Your task to perform on an android device: clear all cookies in the chrome app Image 0: 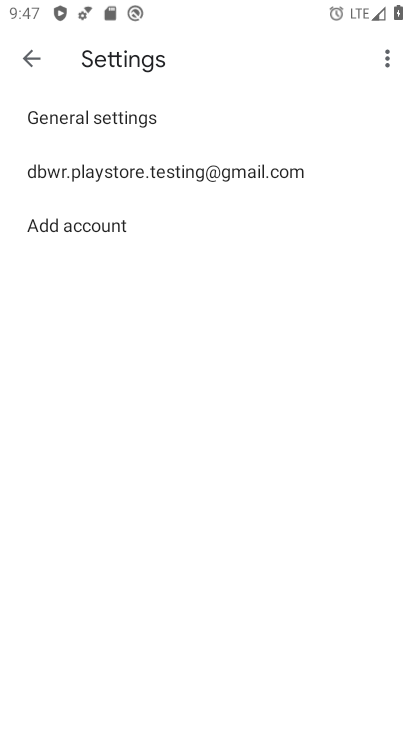
Step 0: press home button
Your task to perform on an android device: clear all cookies in the chrome app Image 1: 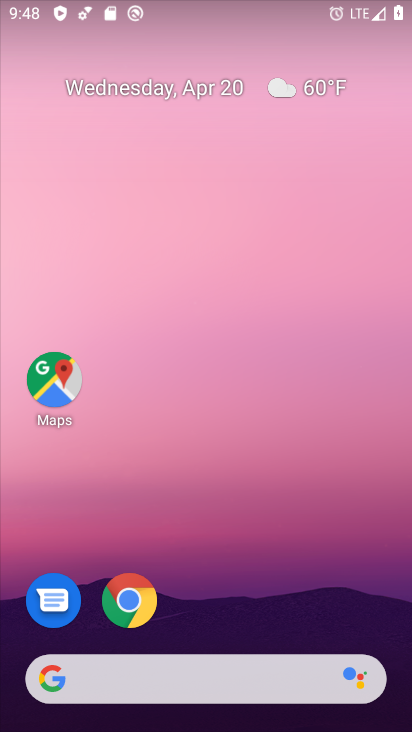
Step 1: click (125, 593)
Your task to perform on an android device: clear all cookies in the chrome app Image 2: 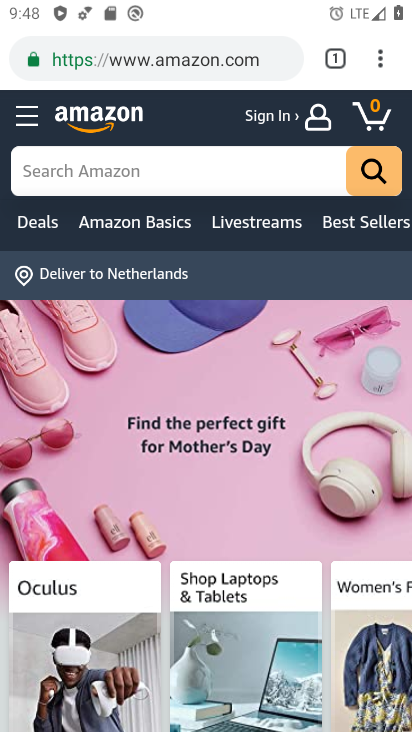
Step 2: drag from (377, 58) to (197, 406)
Your task to perform on an android device: clear all cookies in the chrome app Image 3: 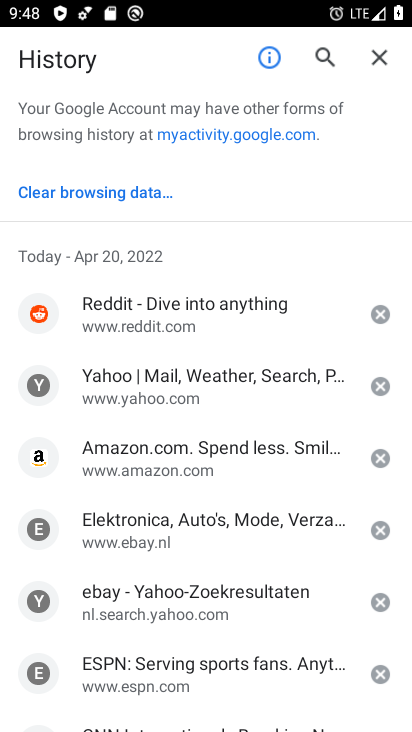
Step 3: click (110, 199)
Your task to perform on an android device: clear all cookies in the chrome app Image 4: 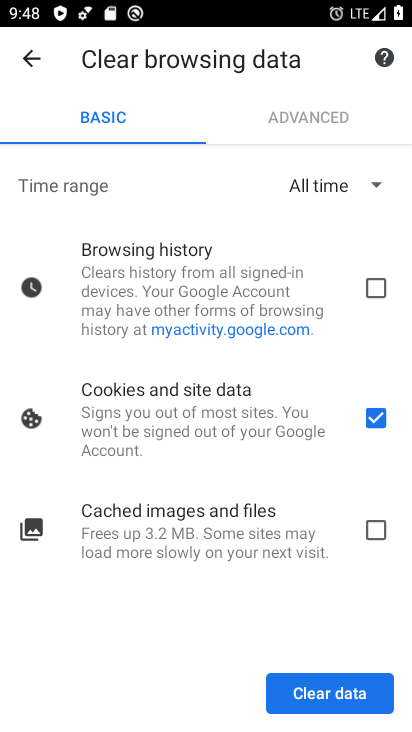
Step 4: click (309, 695)
Your task to perform on an android device: clear all cookies in the chrome app Image 5: 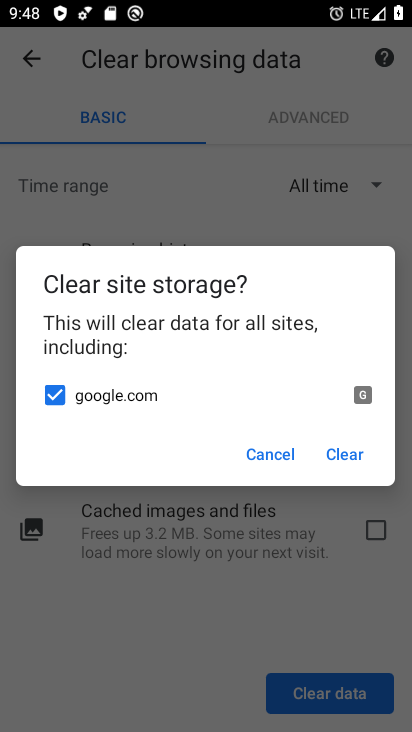
Step 5: click (325, 455)
Your task to perform on an android device: clear all cookies in the chrome app Image 6: 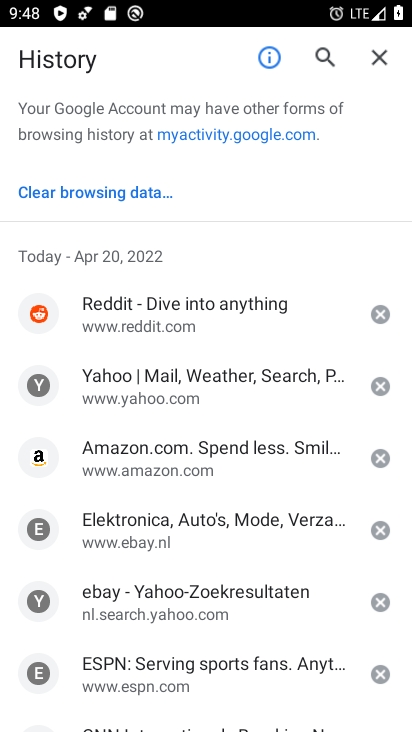
Step 6: task complete